Your task to perform on an android device: choose inbox layout in the gmail app Image 0: 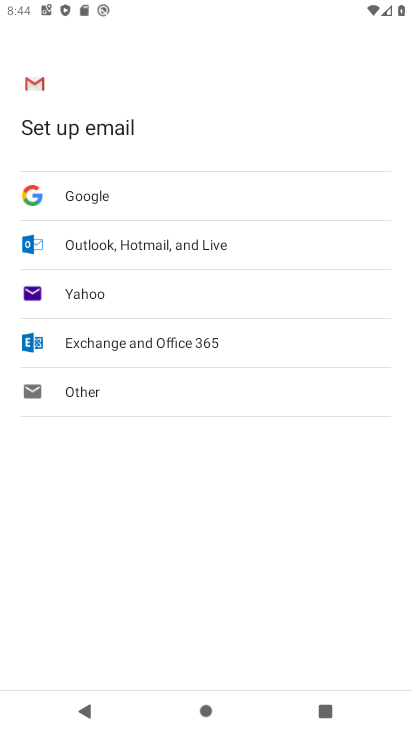
Step 0: press home button
Your task to perform on an android device: choose inbox layout in the gmail app Image 1: 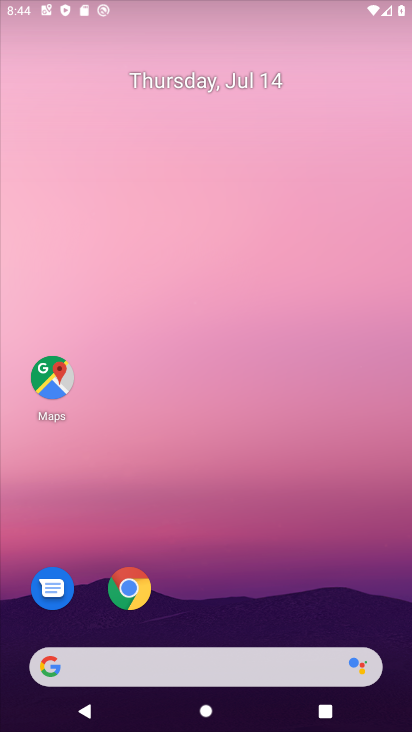
Step 1: drag from (209, 545) to (230, 116)
Your task to perform on an android device: choose inbox layout in the gmail app Image 2: 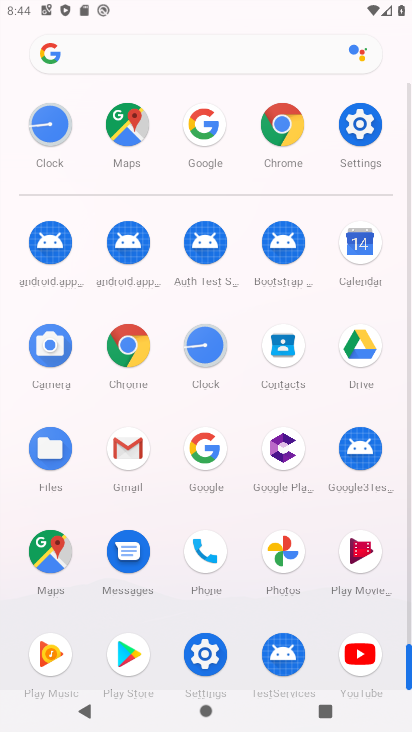
Step 2: click (132, 452)
Your task to perform on an android device: choose inbox layout in the gmail app Image 3: 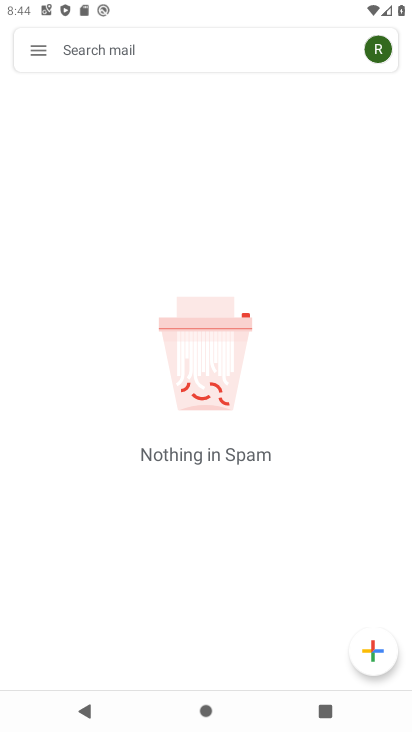
Step 3: click (35, 48)
Your task to perform on an android device: choose inbox layout in the gmail app Image 4: 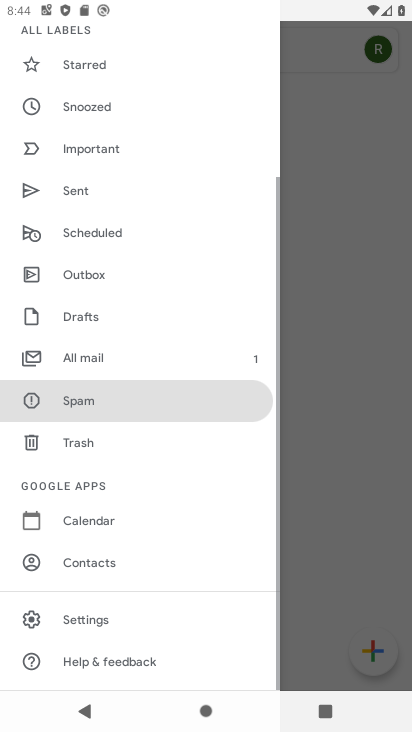
Step 4: click (91, 607)
Your task to perform on an android device: choose inbox layout in the gmail app Image 5: 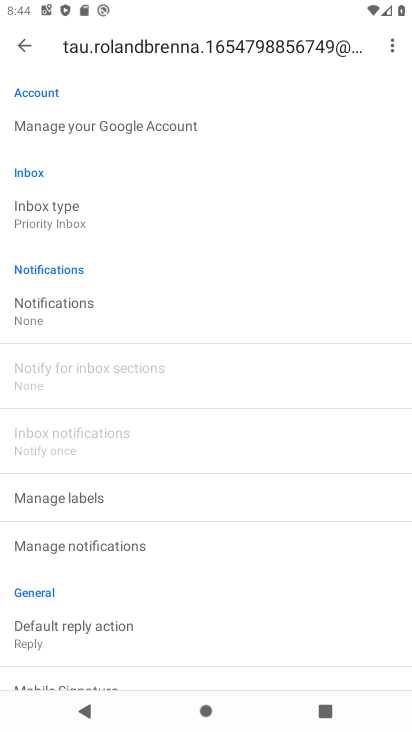
Step 5: click (57, 227)
Your task to perform on an android device: choose inbox layout in the gmail app Image 6: 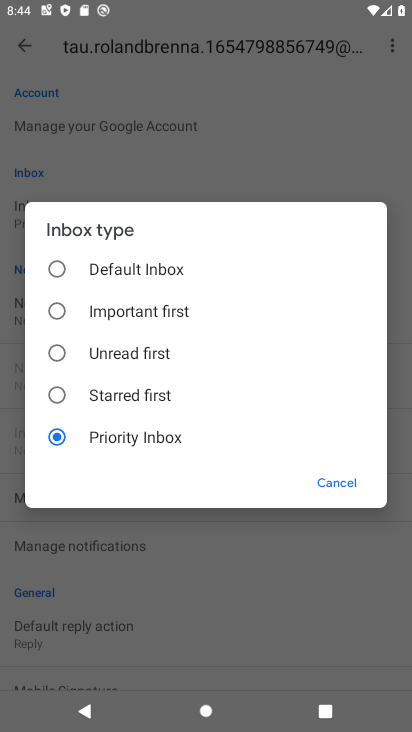
Step 6: click (56, 269)
Your task to perform on an android device: choose inbox layout in the gmail app Image 7: 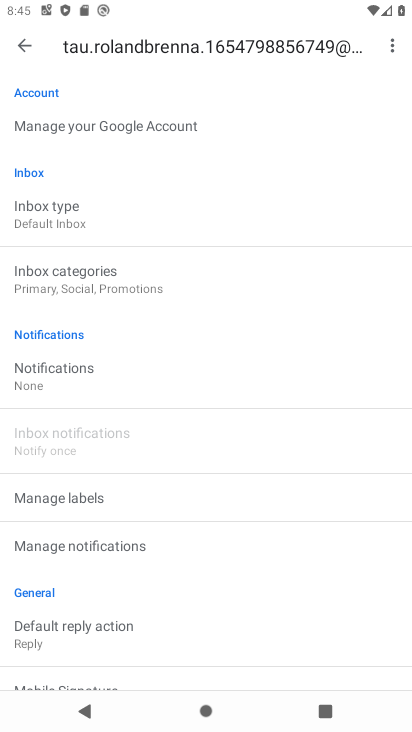
Step 7: task complete